Your task to perform on an android device: open wifi settings Image 0: 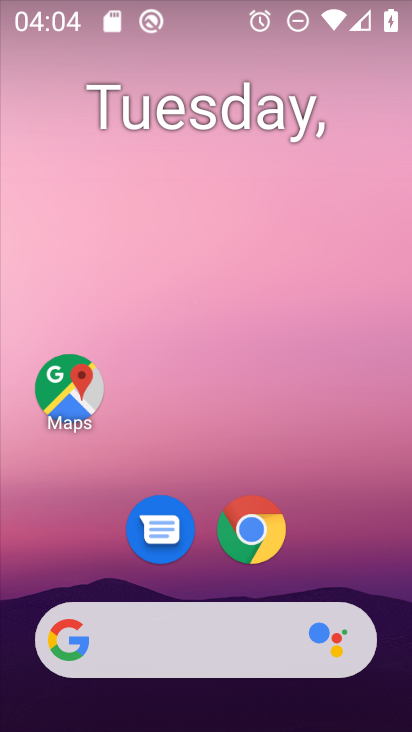
Step 0: drag from (303, 558) to (267, 273)
Your task to perform on an android device: open wifi settings Image 1: 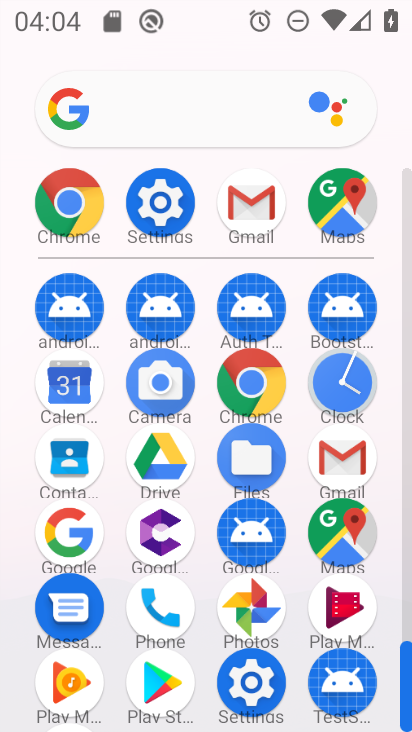
Step 1: click (137, 198)
Your task to perform on an android device: open wifi settings Image 2: 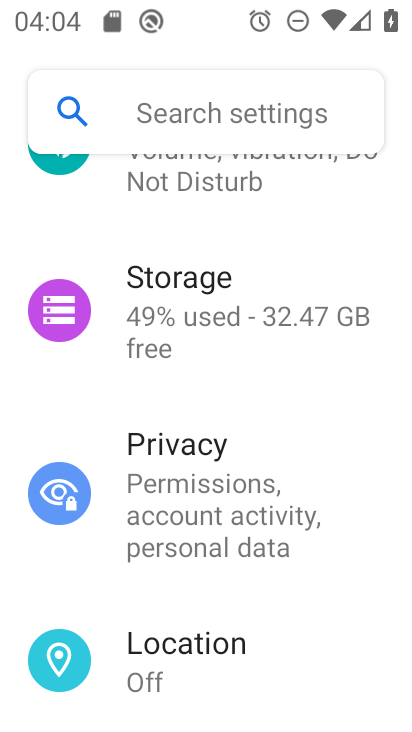
Step 2: drag from (150, 200) to (150, 636)
Your task to perform on an android device: open wifi settings Image 3: 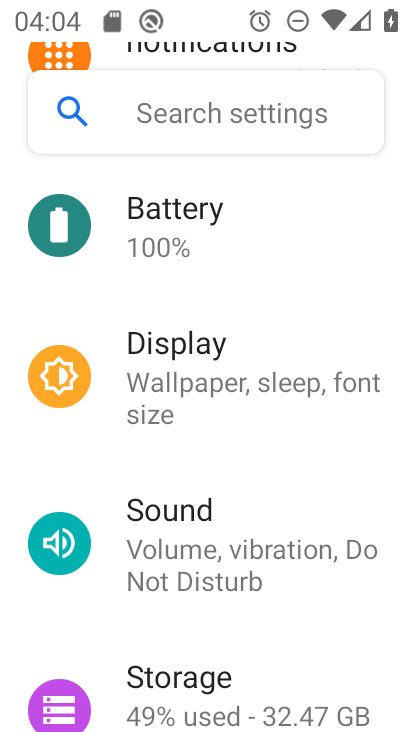
Step 3: drag from (189, 198) to (166, 645)
Your task to perform on an android device: open wifi settings Image 4: 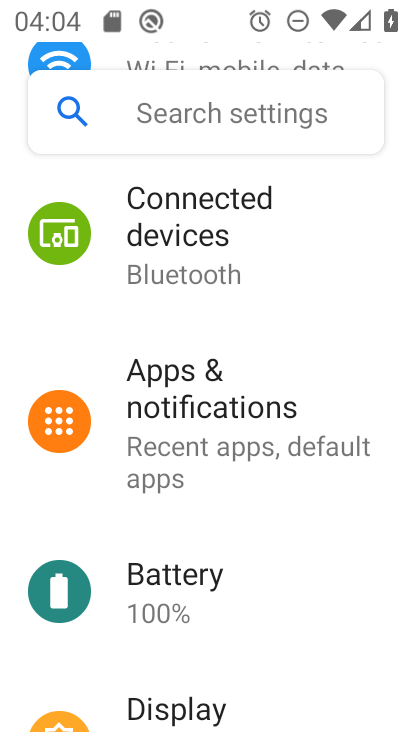
Step 4: drag from (187, 173) to (179, 628)
Your task to perform on an android device: open wifi settings Image 5: 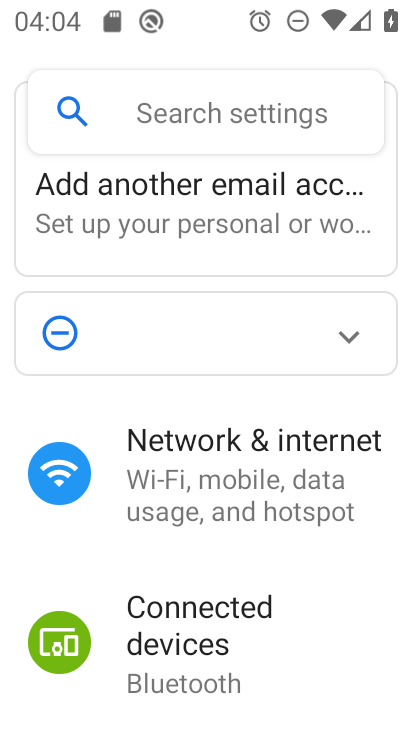
Step 5: click (162, 460)
Your task to perform on an android device: open wifi settings Image 6: 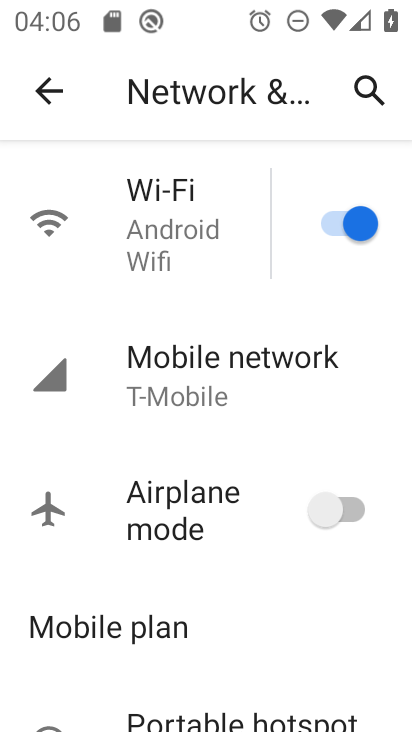
Step 6: task complete